Your task to perform on an android device: Go to Wikipedia Image 0: 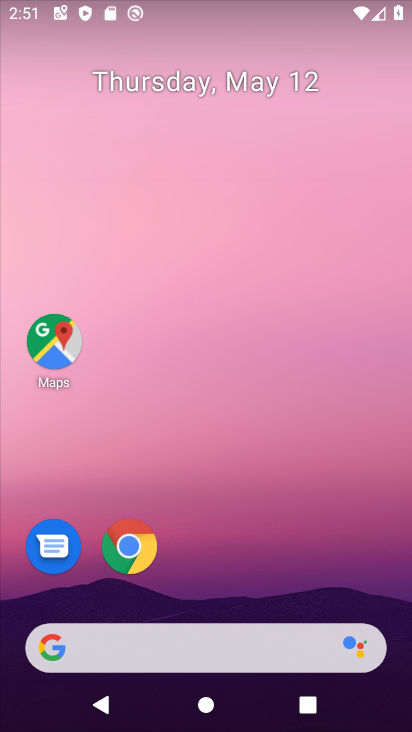
Step 0: drag from (246, 592) to (255, 207)
Your task to perform on an android device: Go to Wikipedia Image 1: 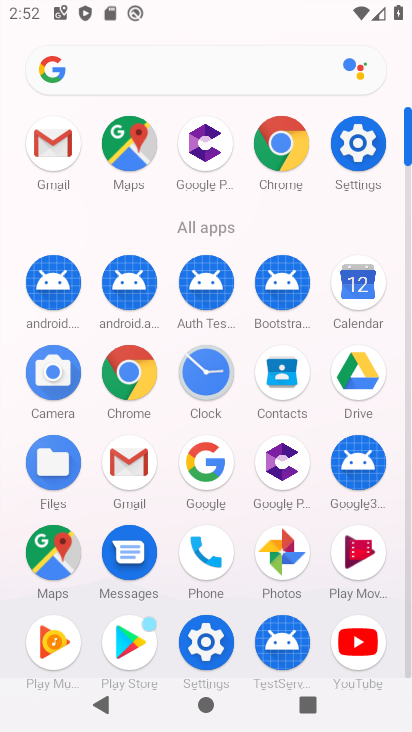
Step 1: click (289, 148)
Your task to perform on an android device: Go to Wikipedia Image 2: 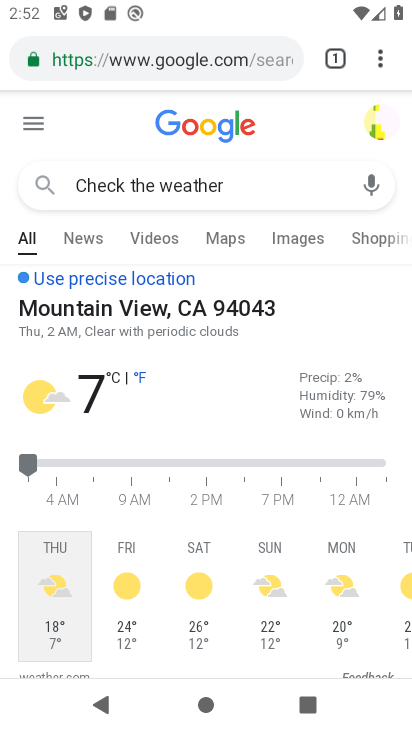
Step 2: click (374, 58)
Your task to perform on an android device: Go to Wikipedia Image 3: 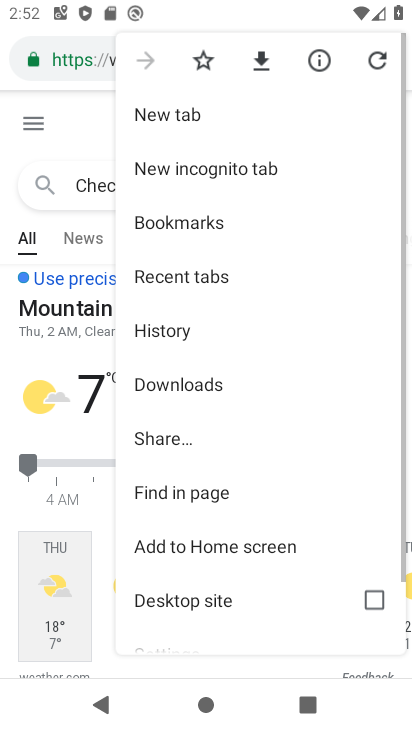
Step 3: click (204, 107)
Your task to perform on an android device: Go to Wikipedia Image 4: 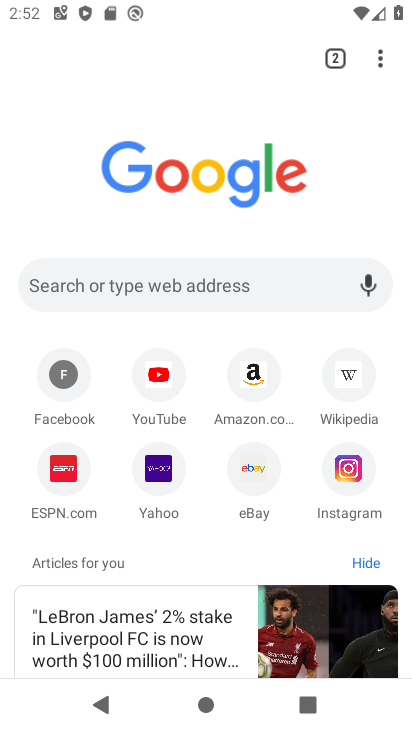
Step 4: click (348, 365)
Your task to perform on an android device: Go to Wikipedia Image 5: 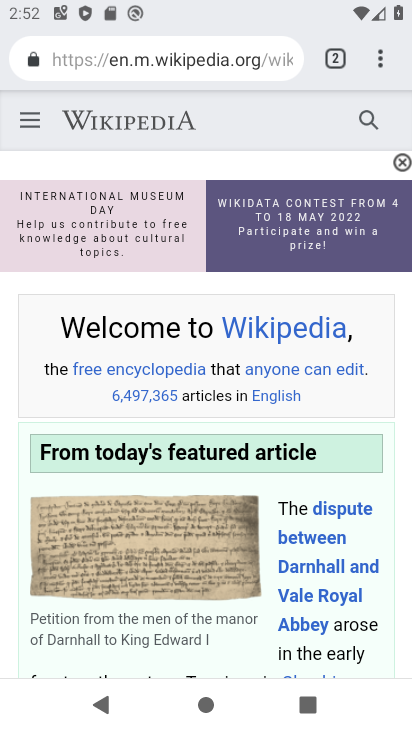
Step 5: task complete